Your task to perform on an android device: turn notification dots off Image 0: 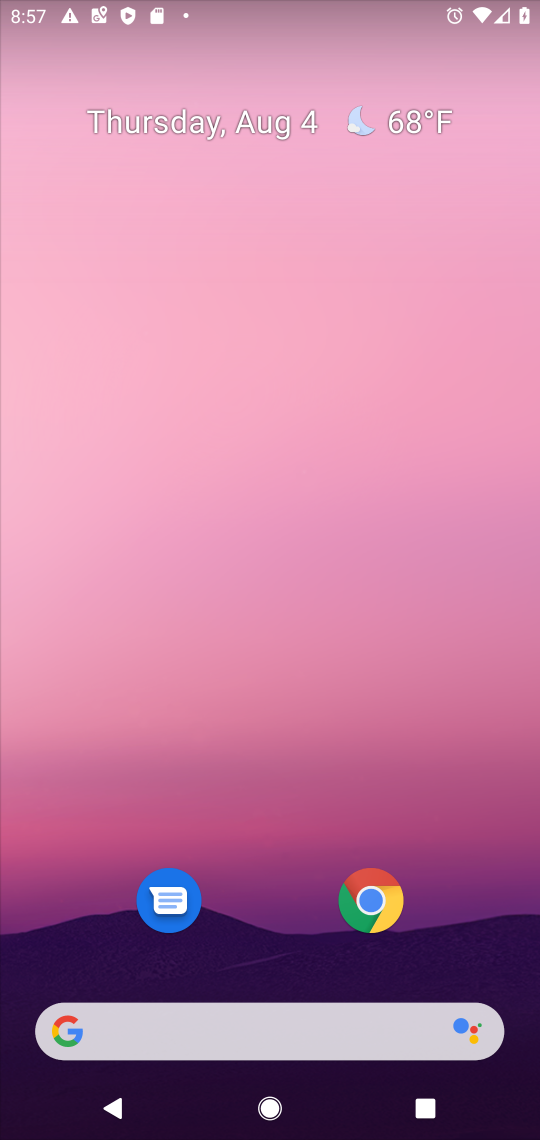
Step 0: drag from (291, 1045) to (267, 111)
Your task to perform on an android device: turn notification dots off Image 1: 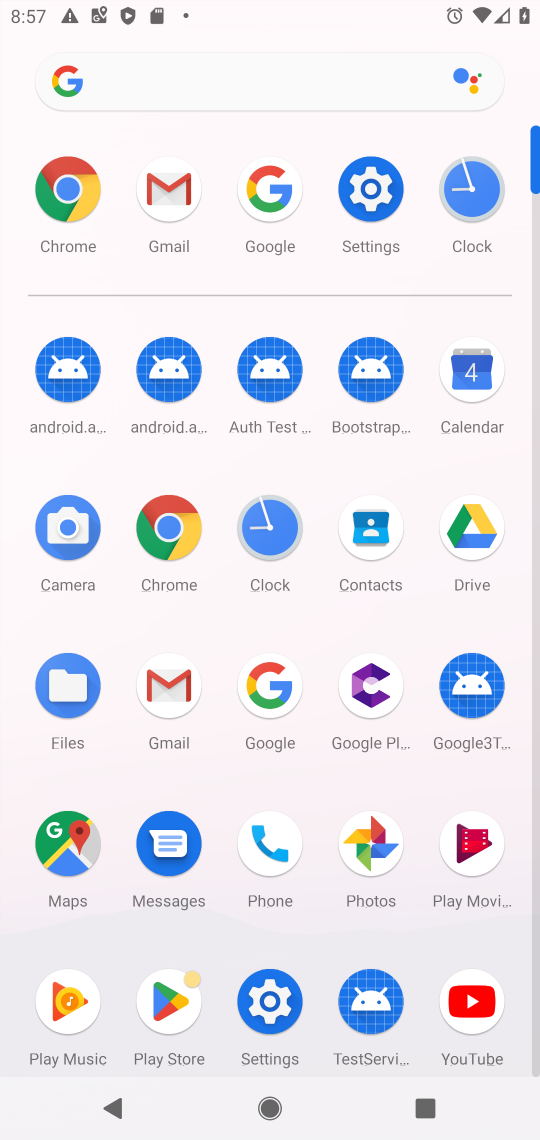
Step 1: click (368, 189)
Your task to perform on an android device: turn notification dots off Image 2: 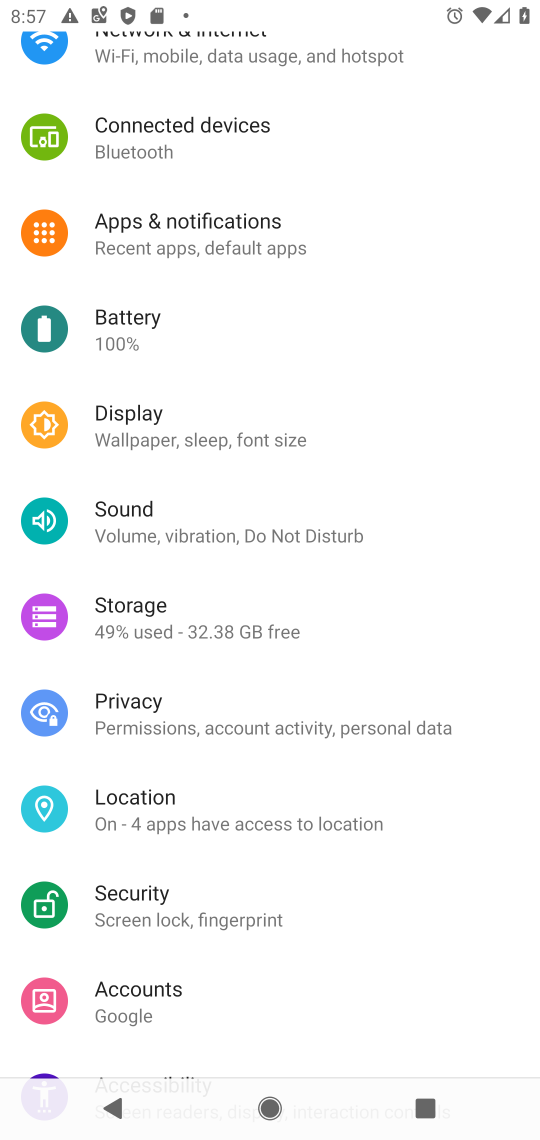
Step 2: click (221, 243)
Your task to perform on an android device: turn notification dots off Image 3: 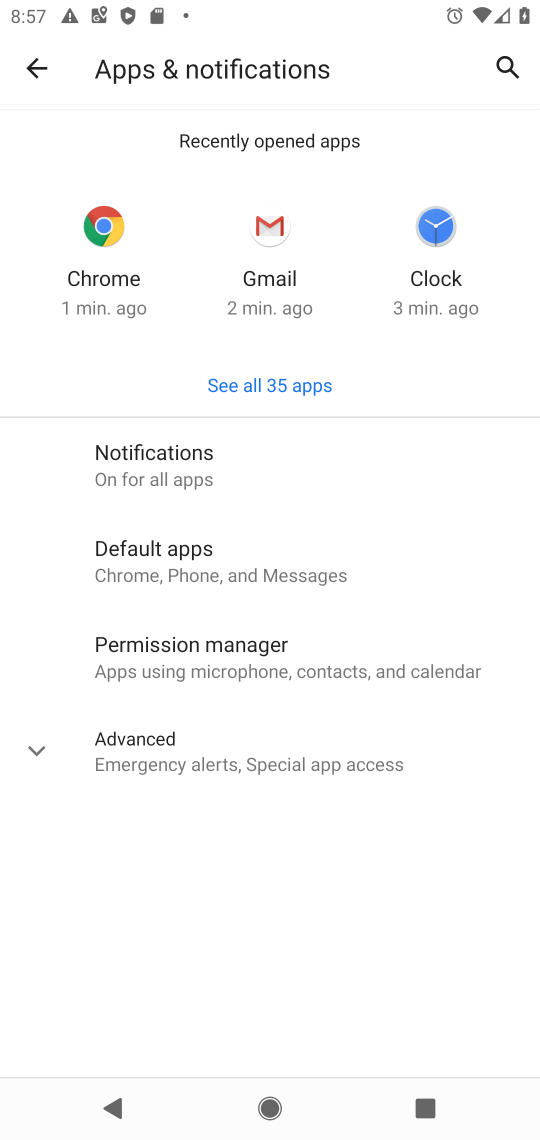
Step 3: click (177, 467)
Your task to perform on an android device: turn notification dots off Image 4: 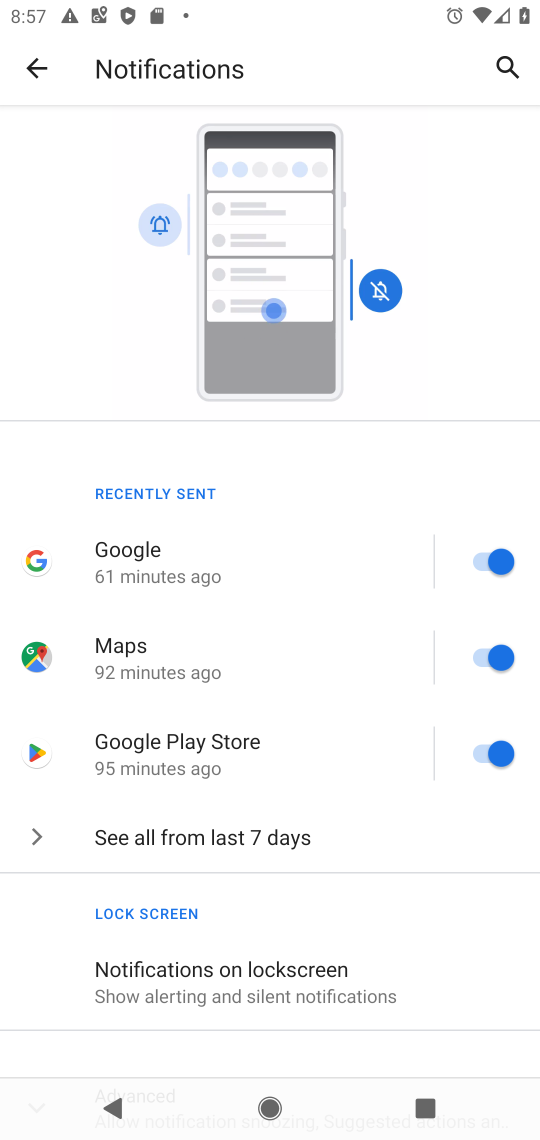
Step 4: drag from (242, 927) to (285, 603)
Your task to perform on an android device: turn notification dots off Image 5: 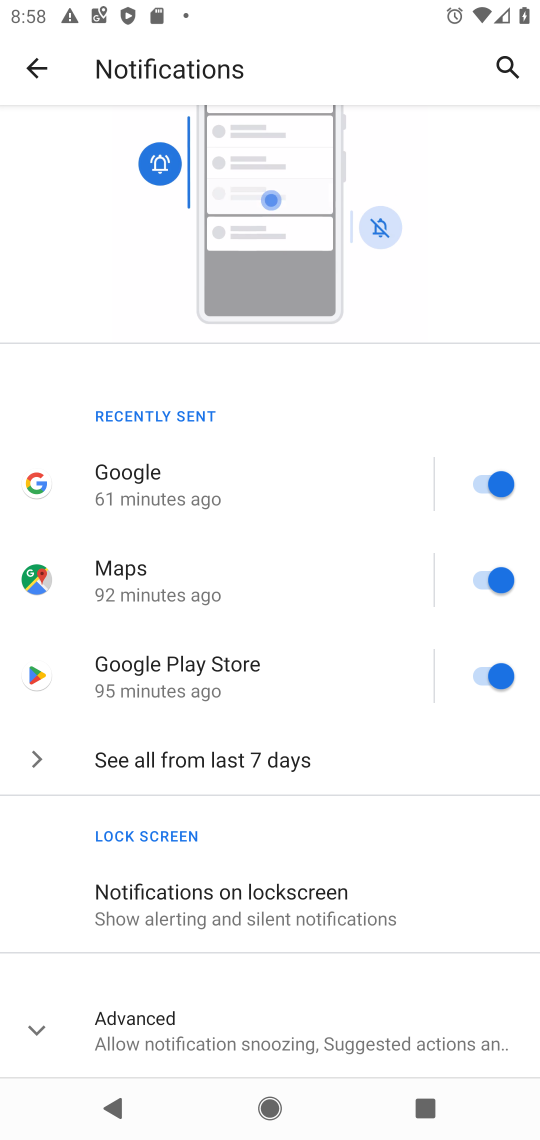
Step 5: click (291, 1044)
Your task to perform on an android device: turn notification dots off Image 6: 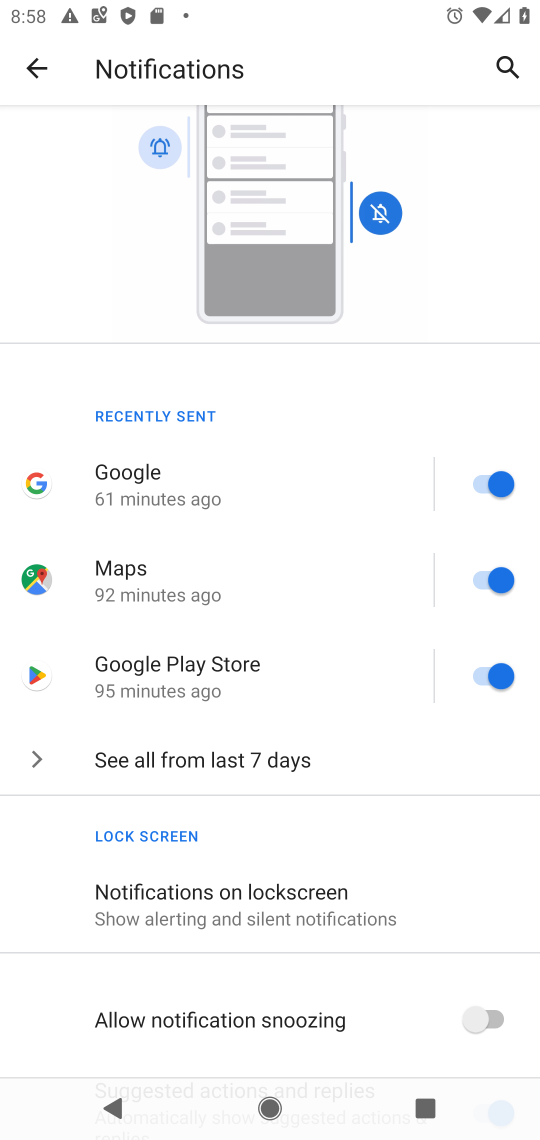
Step 6: drag from (192, 1023) to (279, 675)
Your task to perform on an android device: turn notification dots off Image 7: 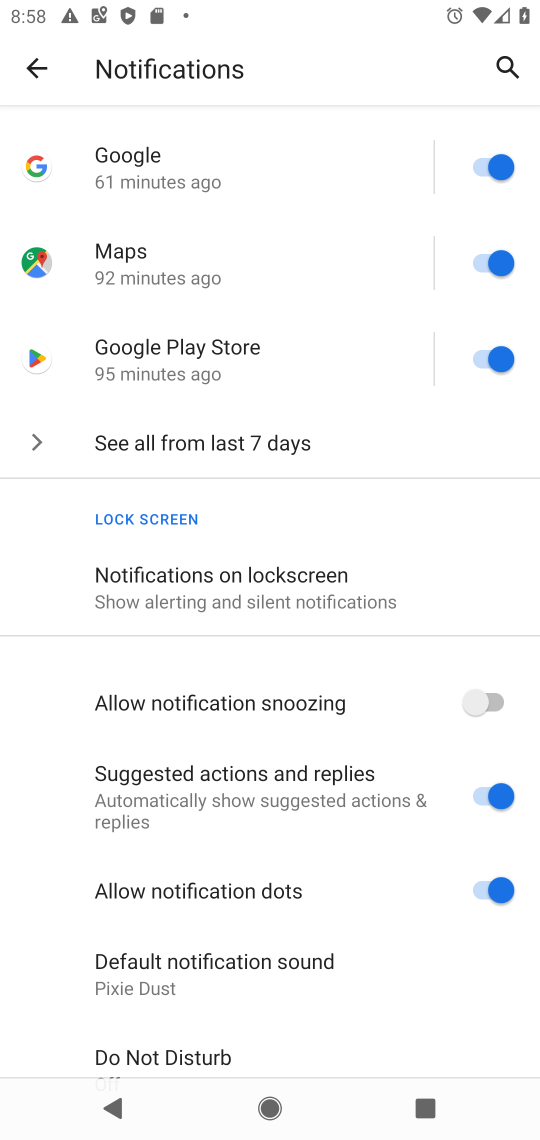
Step 7: click (486, 890)
Your task to perform on an android device: turn notification dots off Image 8: 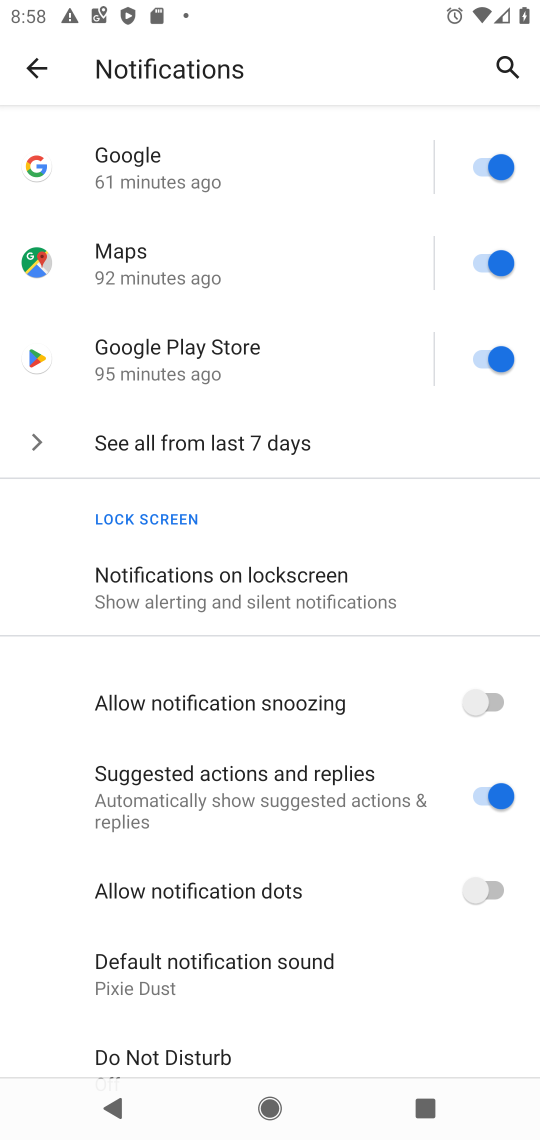
Step 8: task complete